Your task to perform on an android device: Go to eBay Image 0: 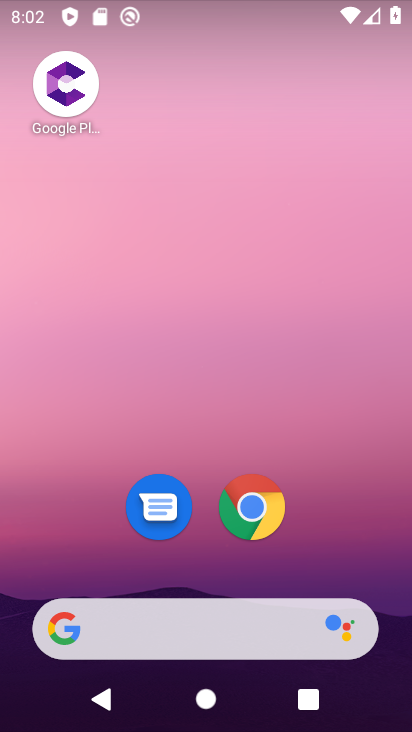
Step 0: click (247, 508)
Your task to perform on an android device: Go to eBay Image 1: 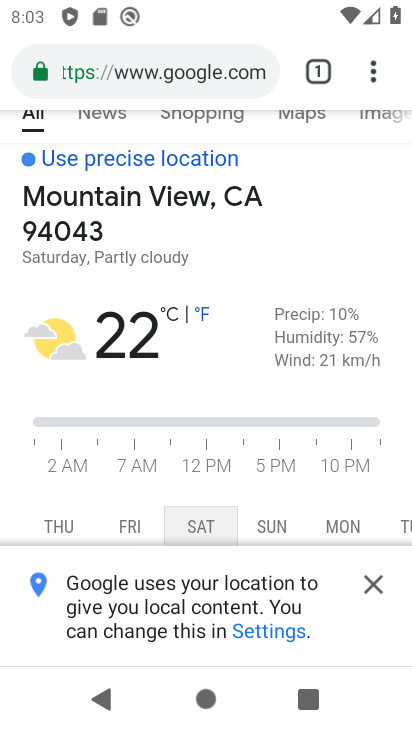
Step 1: click (77, 62)
Your task to perform on an android device: Go to eBay Image 2: 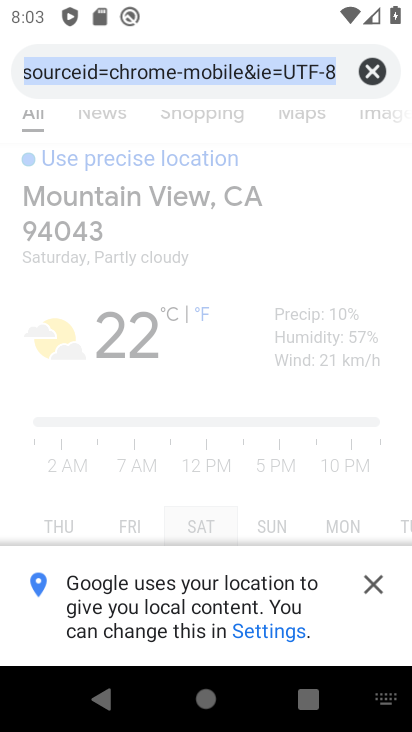
Step 2: type "eBay"
Your task to perform on an android device: Go to eBay Image 3: 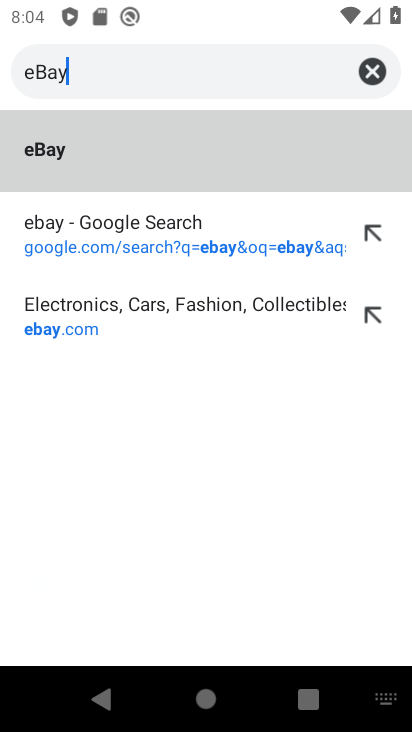
Step 3: click (162, 169)
Your task to perform on an android device: Go to eBay Image 4: 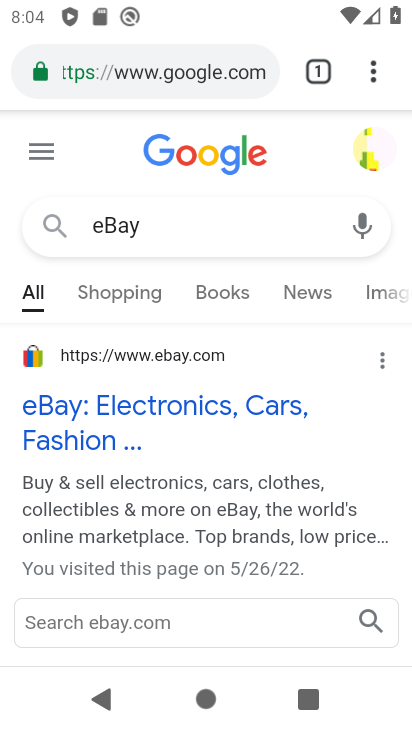
Step 4: task complete